Your task to perform on an android device: toggle wifi Image 0: 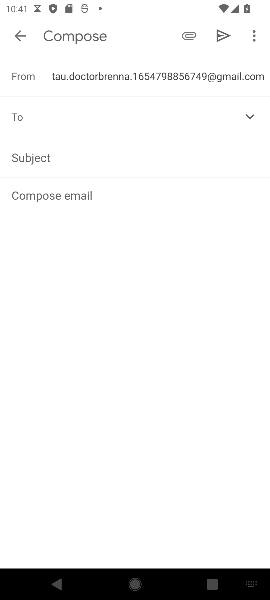
Step 0: press home button
Your task to perform on an android device: toggle wifi Image 1: 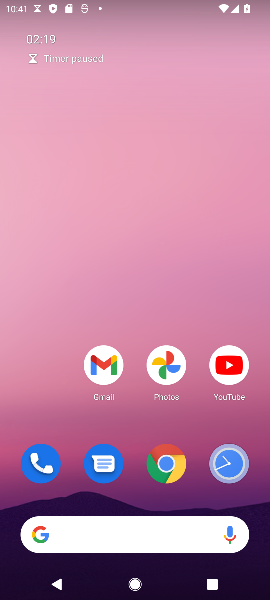
Step 1: drag from (13, 553) to (143, 258)
Your task to perform on an android device: toggle wifi Image 2: 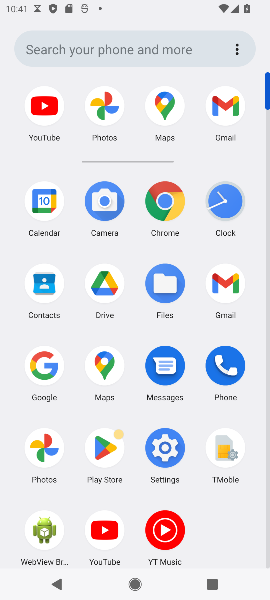
Step 2: click (155, 440)
Your task to perform on an android device: toggle wifi Image 3: 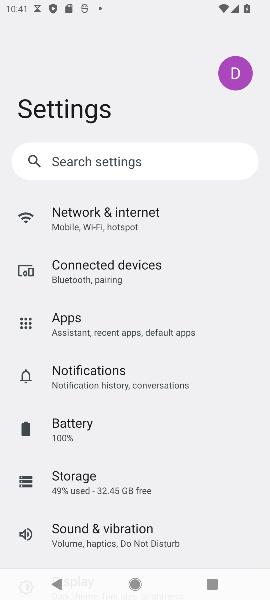
Step 3: click (116, 217)
Your task to perform on an android device: toggle wifi Image 4: 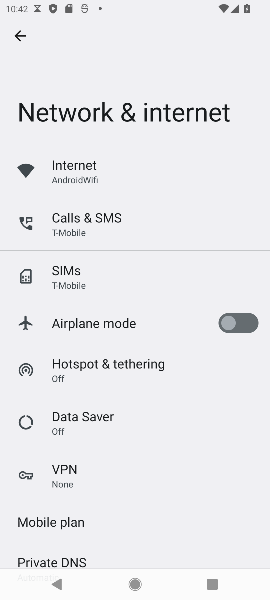
Step 4: click (77, 171)
Your task to perform on an android device: toggle wifi Image 5: 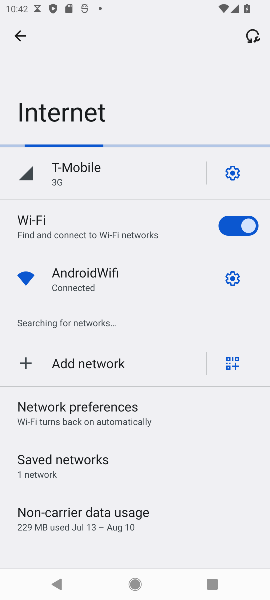
Step 5: task complete